Your task to perform on an android device: Is it going to rain tomorrow? Image 0: 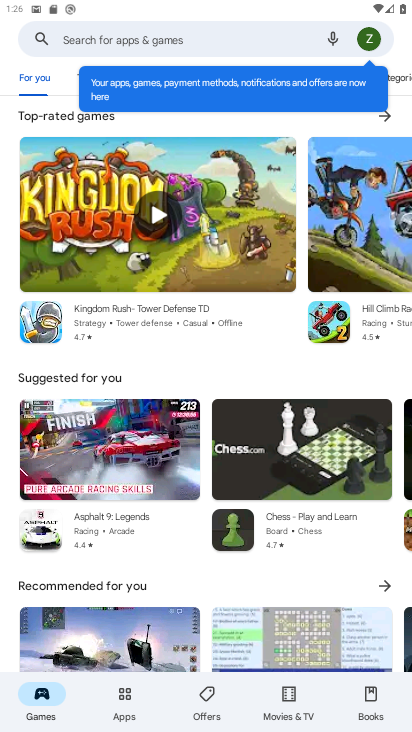
Step 0: press home button
Your task to perform on an android device: Is it going to rain tomorrow? Image 1: 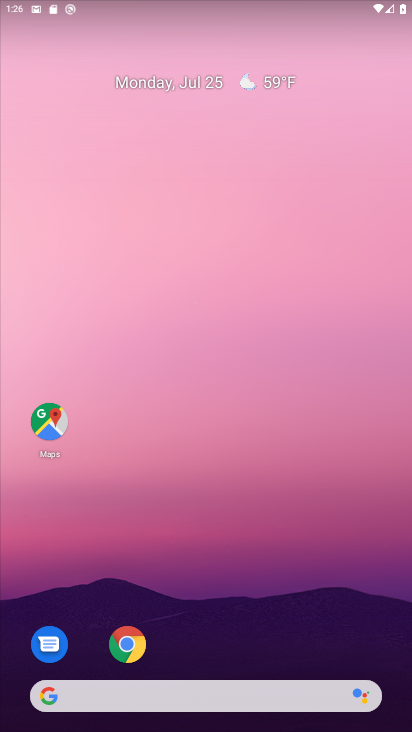
Step 1: drag from (0, 292) to (409, 280)
Your task to perform on an android device: Is it going to rain tomorrow? Image 2: 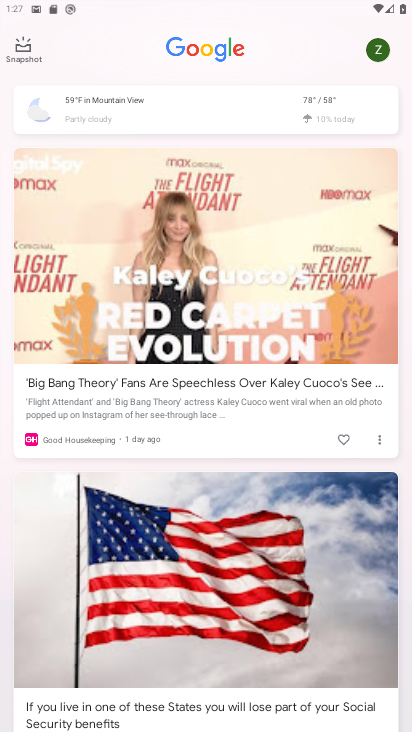
Step 2: click (320, 98)
Your task to perform on an android device: Is it going to rain tomorrow? Image 3: 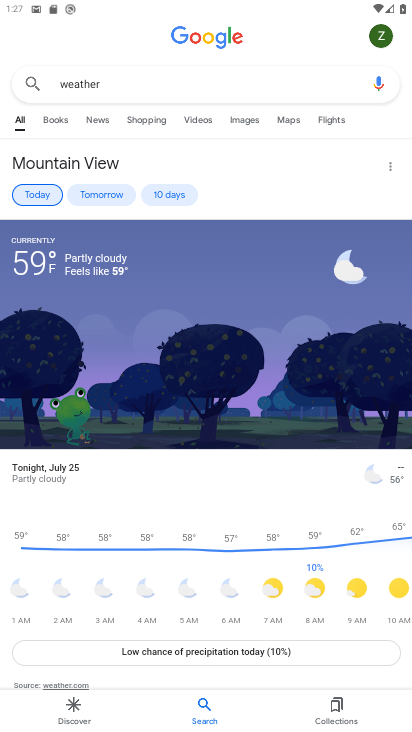
Step 3: click (102, 195)
Your task to perform on an android device: Is it going to rain tomorrow? Image 4: 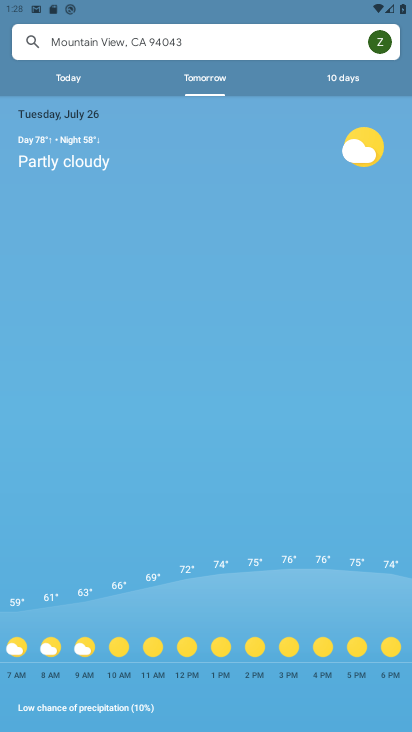
Step 4: task complete